Your task to perform on an android device: Turn off the flashlight Image 0: 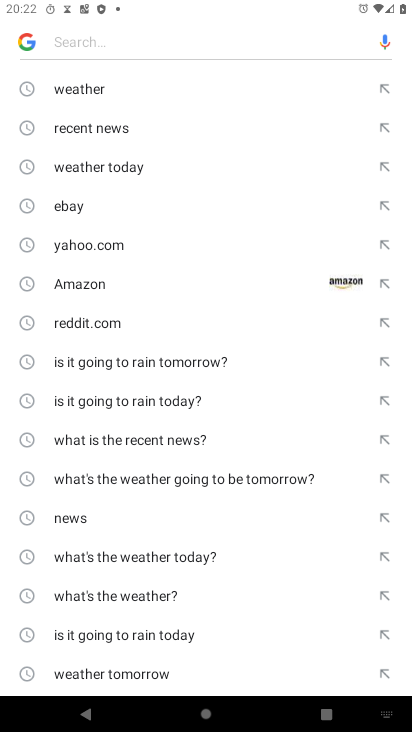
Step 0: press back button
Your task to perform on an android device: Turn off the flashlight Image 1: 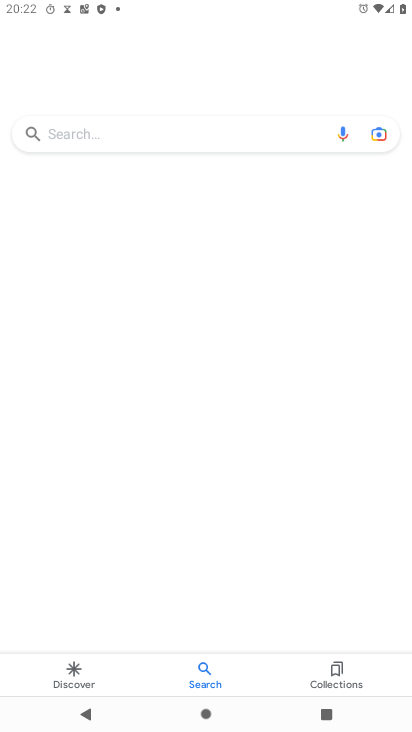
Step 1: press back button
Your task to perform on an android device: Turn off the flashlight Image 2: 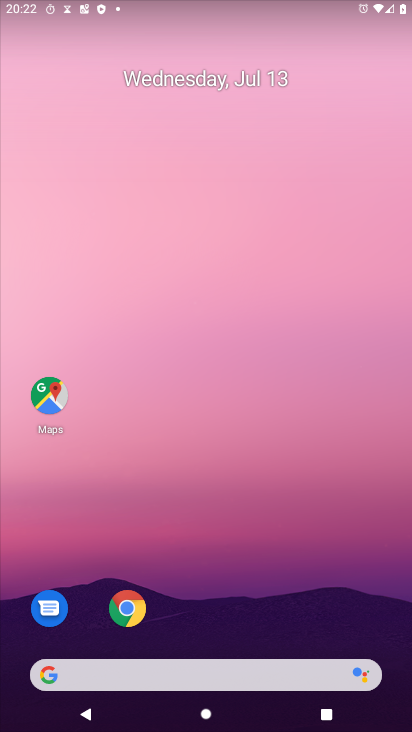
Step 2: drag from (180, 661) to (173, 144)
Your task to perform on an android device: Turn off the flashlight Image 3: 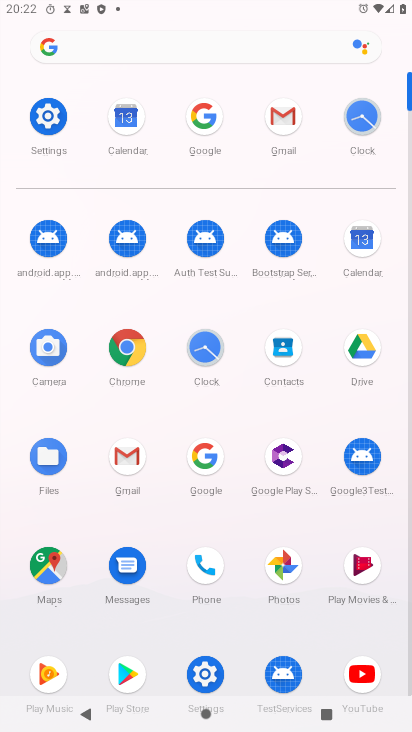
Step 3: click (53, 124)
Your task to perform on an android device: Turn off the flashlight Image 4: 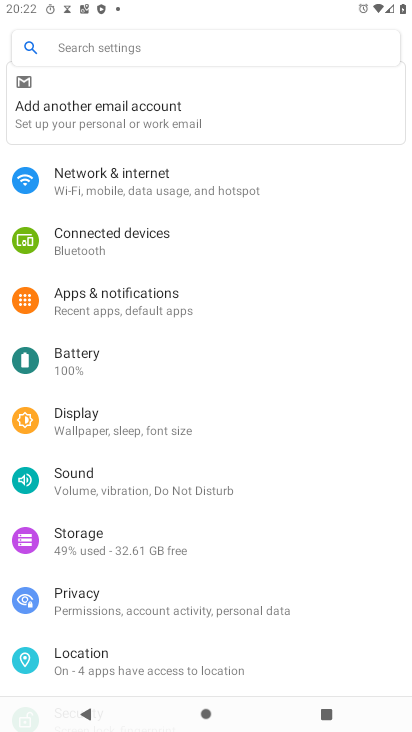
Step 4: click (93, 431)
Your task to perform on an android device: Turn off the flashlight Image 5: 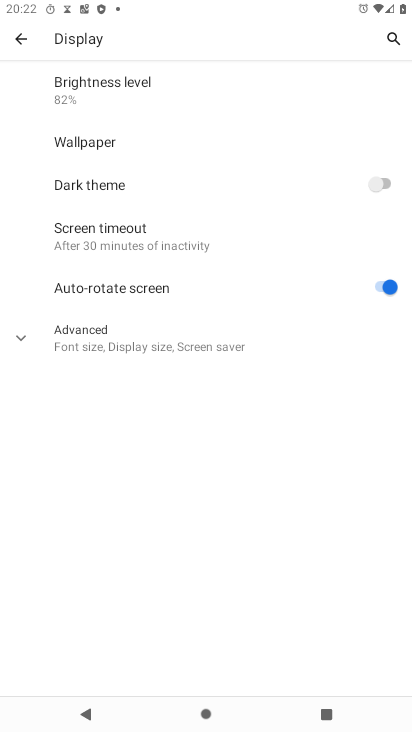
Step 5: task complete